Your task to perform on an android device: turn on sleep mode Image 0: 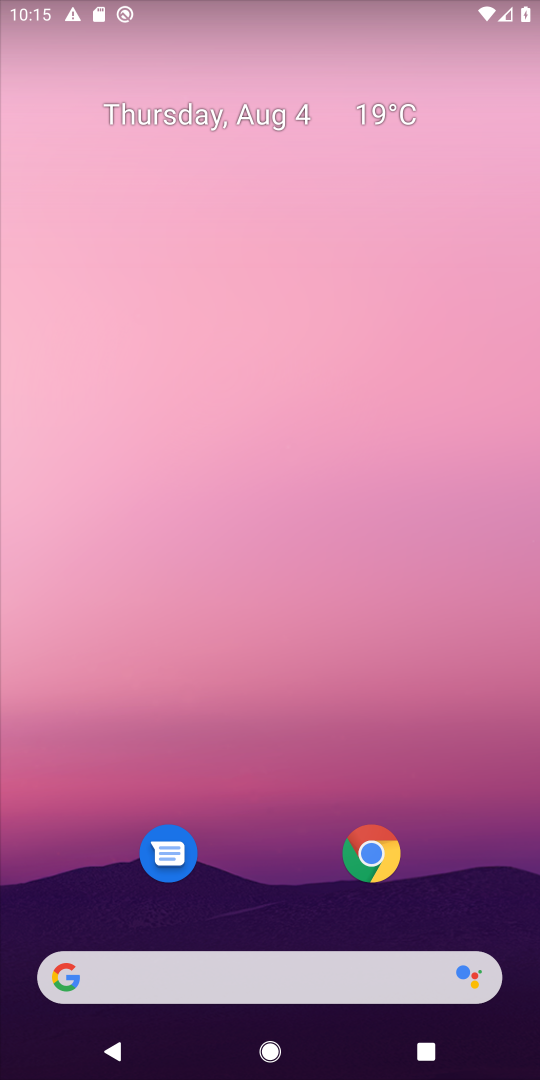
Step 0: drag from (321, 863) to (478, 121)
Your task to perform on an android device: turn on sleep mode Image 1: 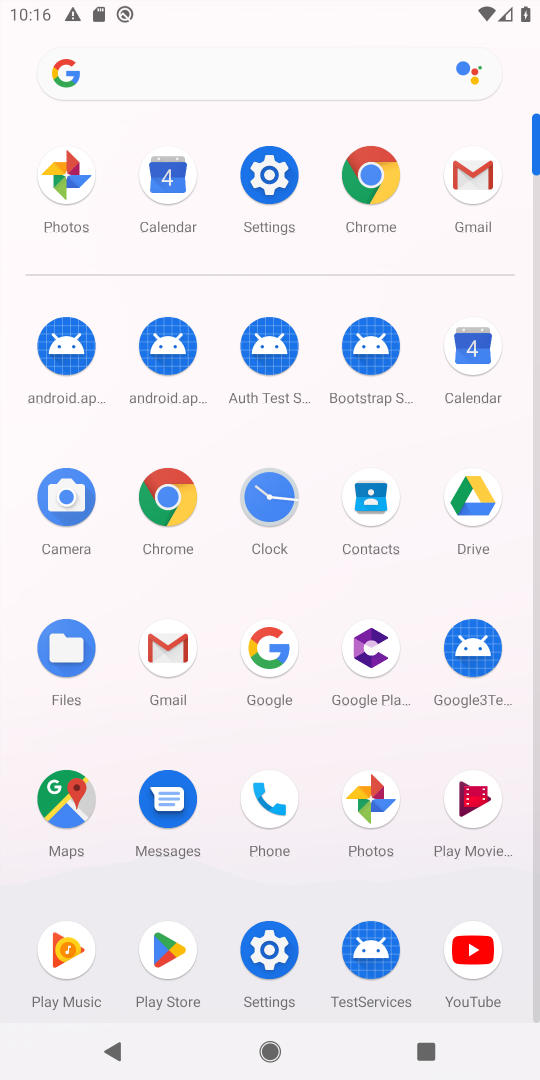
Step 1: click (261, 187)
Your task to perform on an android device: turn on sleep mode Image 2: 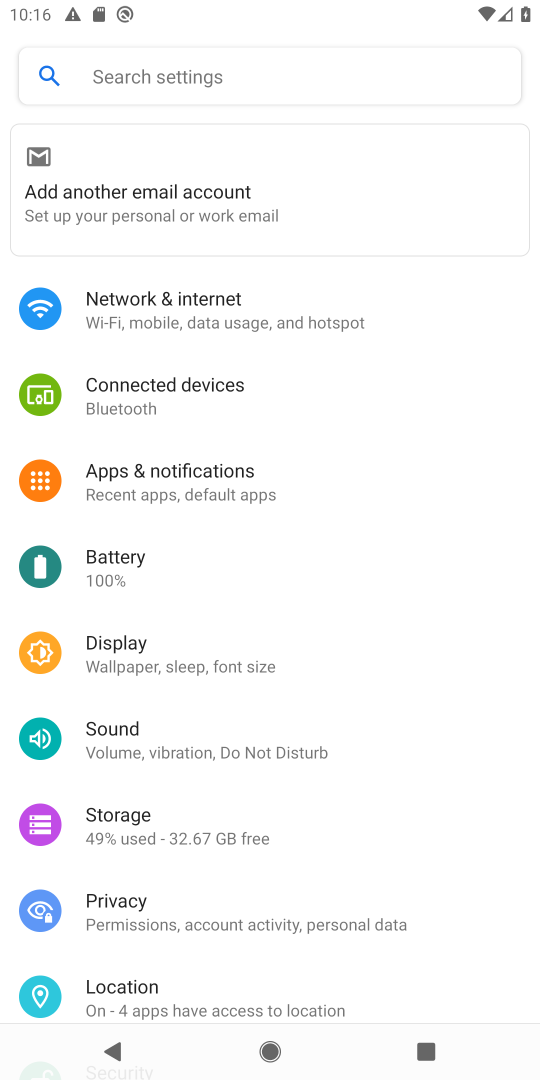
Step 2: click (316, 69)
Your task to perform on an android device: turn on sleep mode Image 3: 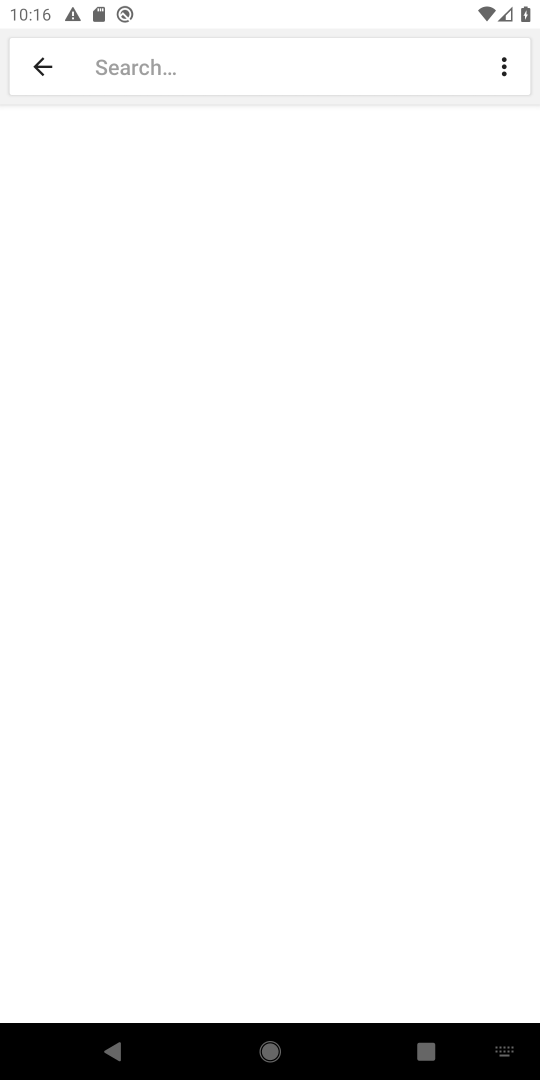
Step 3: type "sleep mode"
Your task to perform on an android device: turn on sleep mode Image 4: 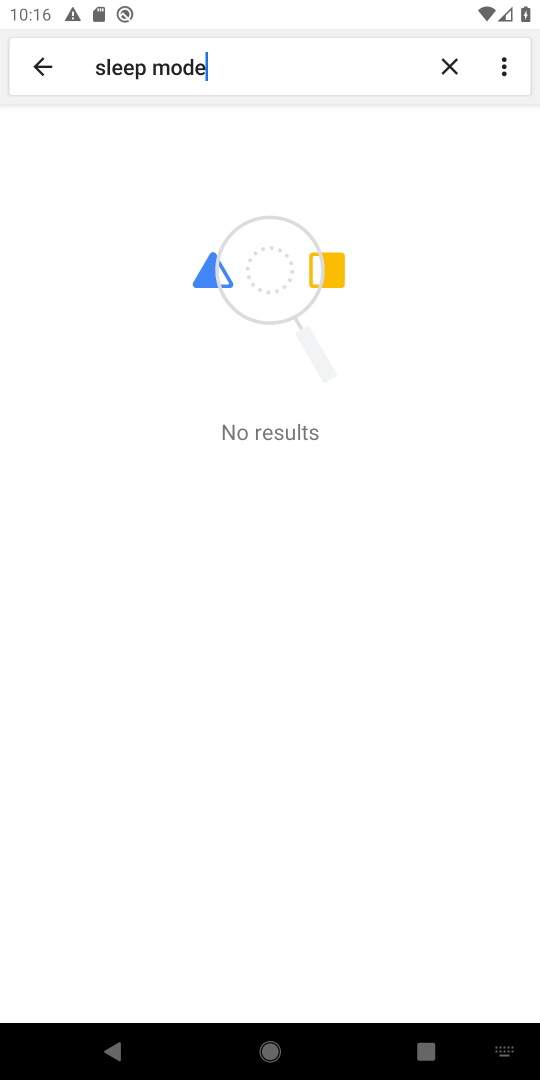
Step 4: task complete